Your task to perform on an android device: Open notification settings Image 0: 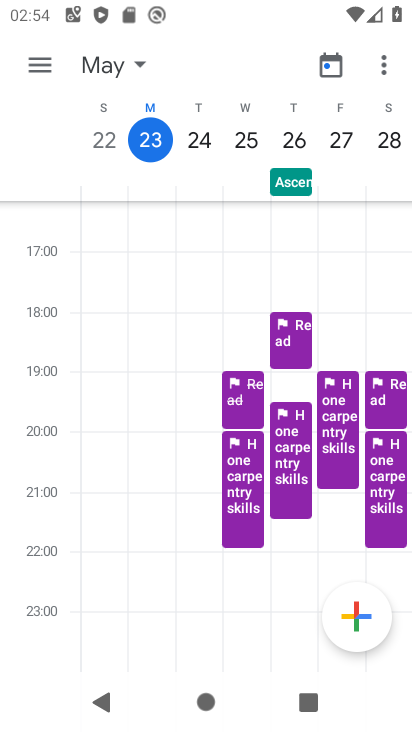
Step 0: press back button
Your task to perform on an android device: Open notification settings Image 1: 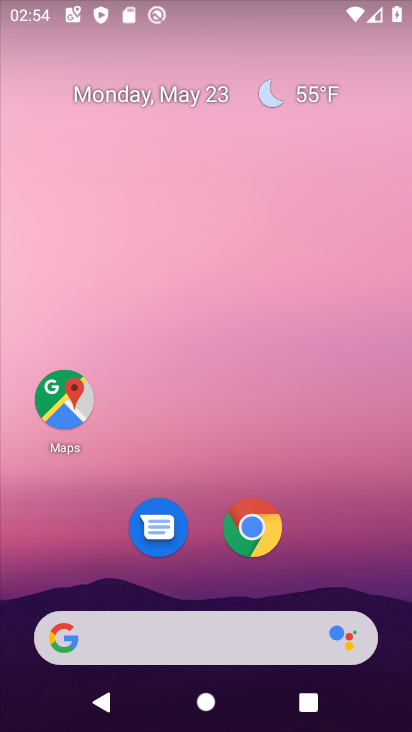
Step 1: click (214, 25)
Your task to perform on an android device: Open notification settings Image 2: 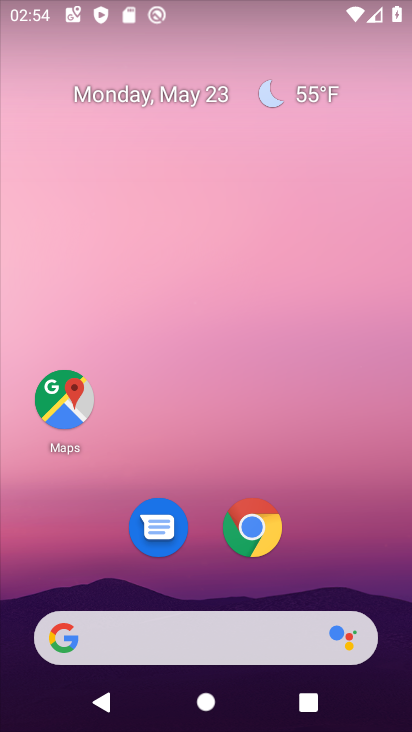
Step 2: drag from (377, 551) to (214, 56)
Your task to perform on an android device: Open notification settings Image 3: 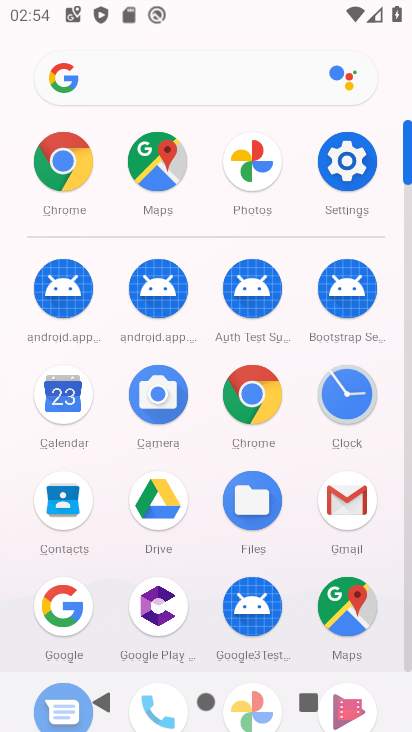
Step 3: drag from (18, 581) to (5, 271)
Your task to perform on an android device: Open notification settings Image 4: 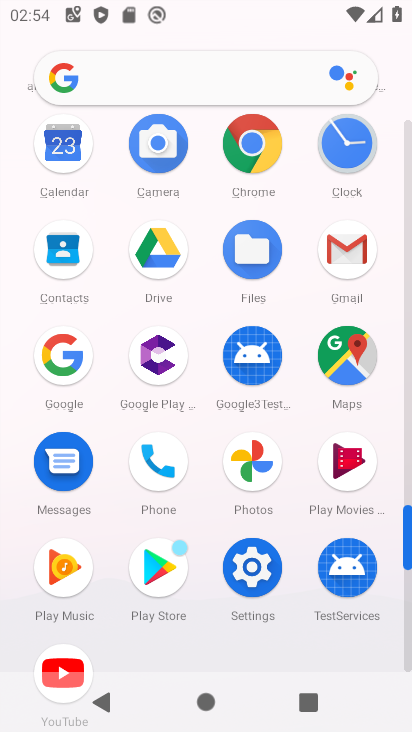
Step 4: click (254, 565)
Your task to perform on an android device: Open notification settings Image 5: 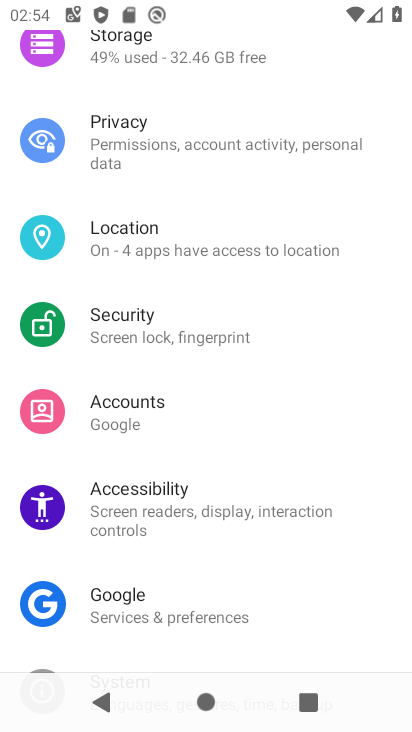
Step 5: drag from (283, 155) to (287, 610)
Your task to perform on an android device: Open notification settings Image 6: 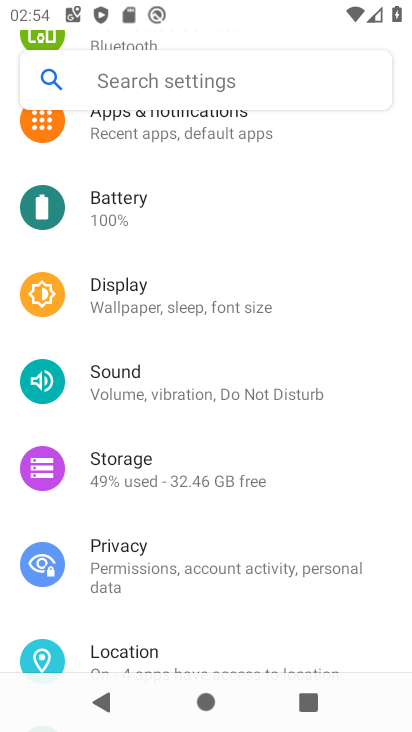
Step 6: drag from (250, 201) to (271, 547)
Your task to perform on an android device: Open notification settings Image 7: 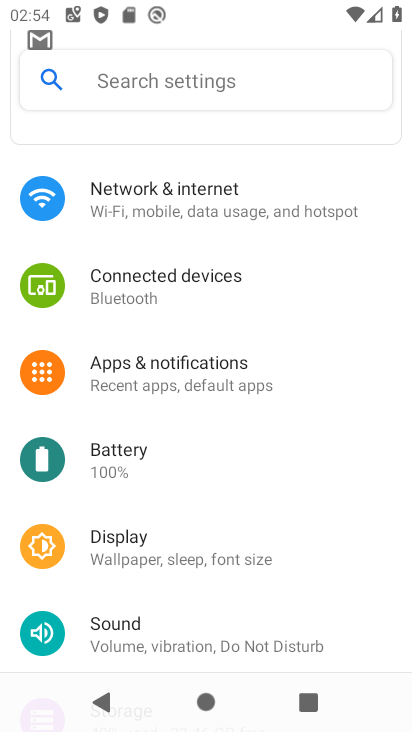
Step 7: click (186, 364)
Your task to perform on an android device: Open notification settings Image 8: 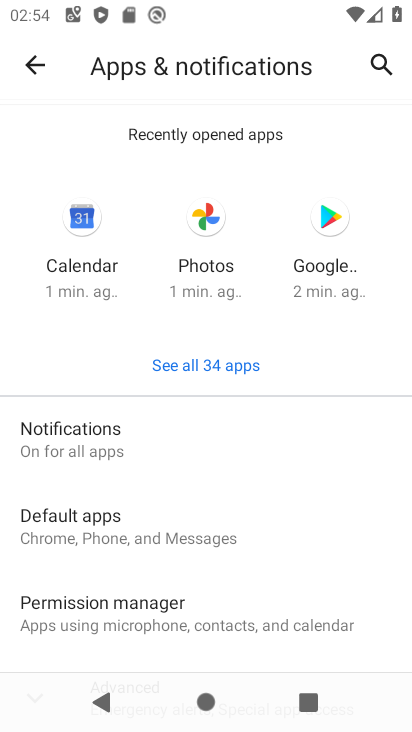
Step 8: click (149, 423)
Your task to perform on an android device: Open notification settings Image 9: 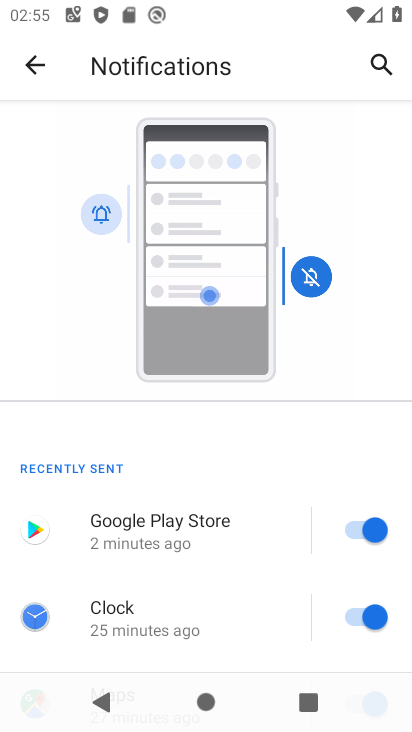
Step 9: drag from (212, 546) to (200, 165)
Your task to perform on an android device: Open notification settings Image 10: 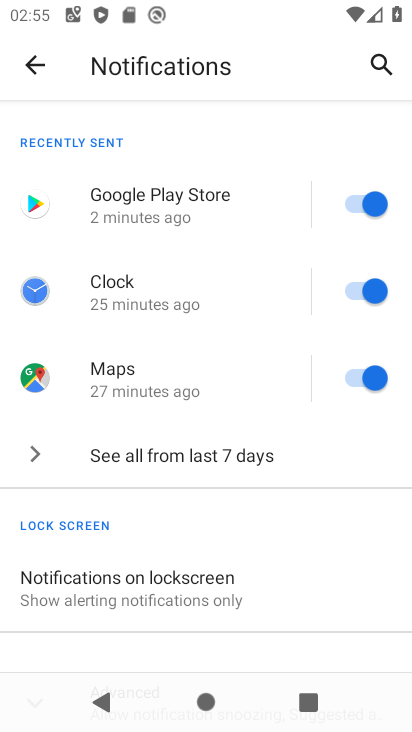
Step 10: drag from (207, 326) to (207, 145)
Your task to perform on an android device: Open notification settings Image 11: 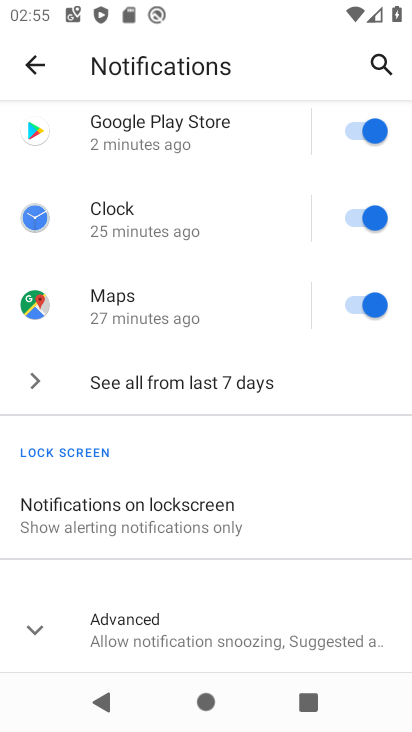
Step 11: click (22, 625)
Your task to perform on an android device: Open notification settings Image 12: 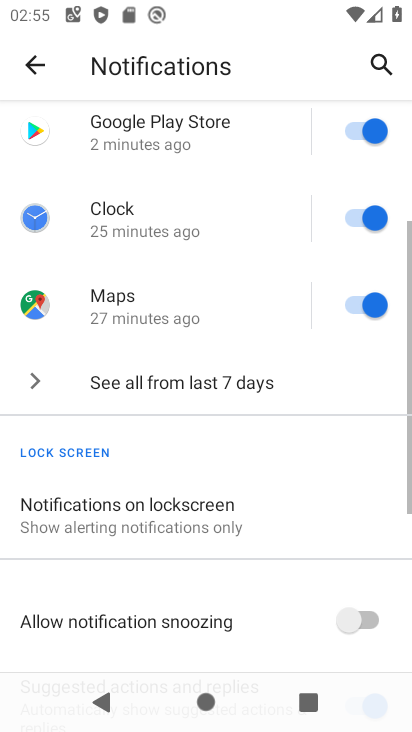
Step 12: task complete